Your task to perform on an android device: Show the shopping cart on costco.com. Add "usb-c" to the cart on costco.com, then select checkout. Image 0: 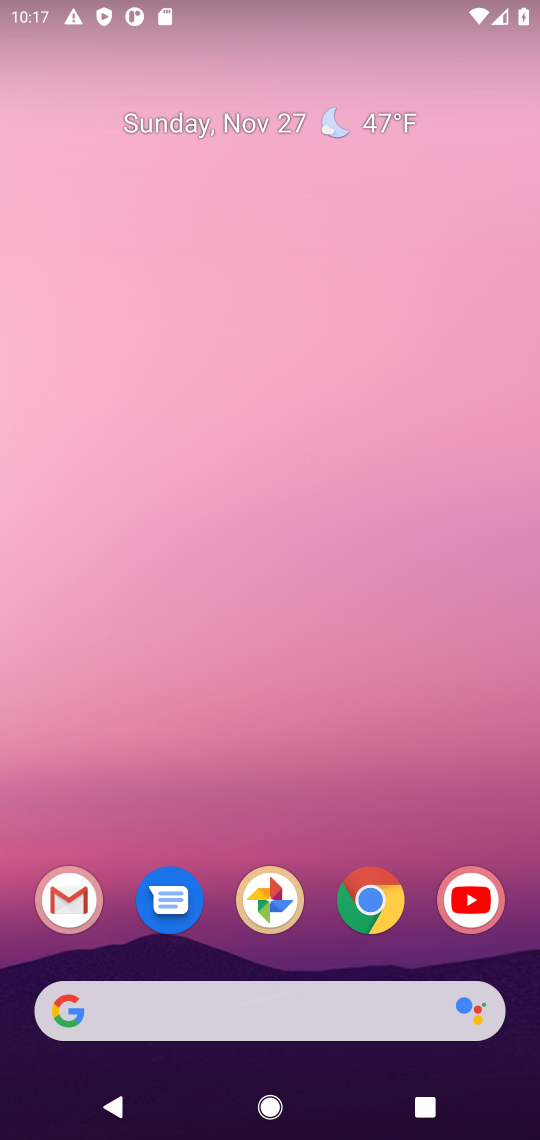
Step 0: click (371, 904)
Your task to perform on an android device: Show the shopping cart on costco.com. Add "usb-c" to the cart on costco.com, then select checkout. Image 1: 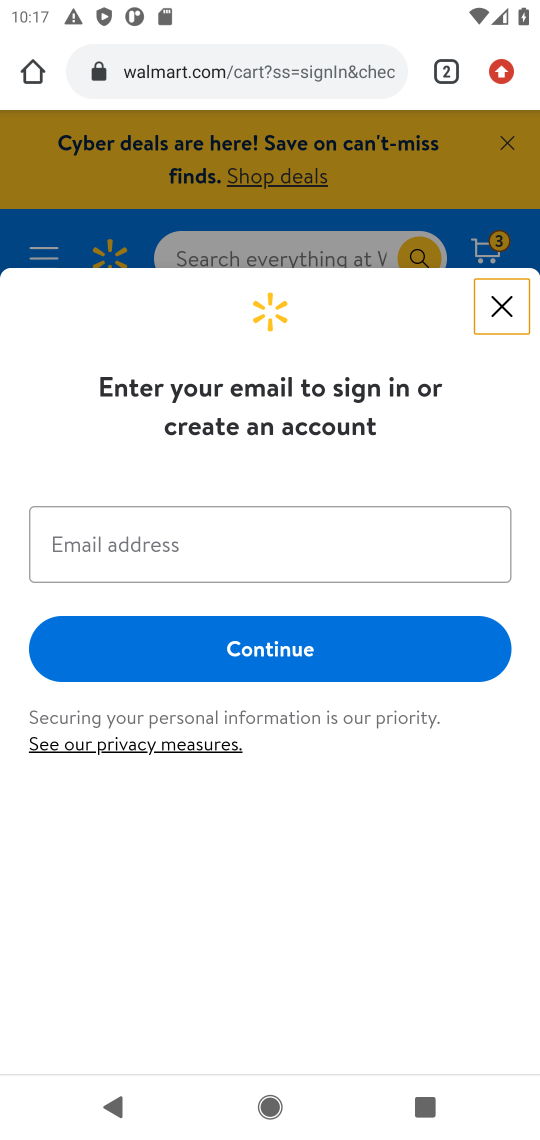
Step 1: click (243, 68)
Your task to perform on an android device: Show the shopping cart on costco.com. Add "usb-c" to the cart on costco.com, then select checkout. Image 2: 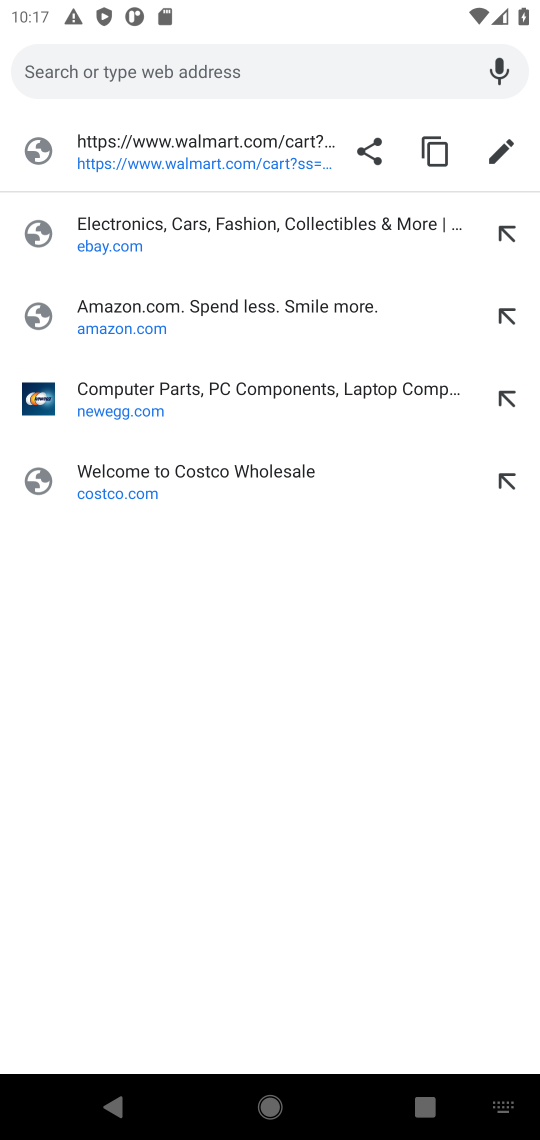
Step 2: click (101, 491)
Your task to perform on an android device: Show the shopping cart on costco.com. Add "usb-c" to the cart on costco.com, then select checkout. Image 3: 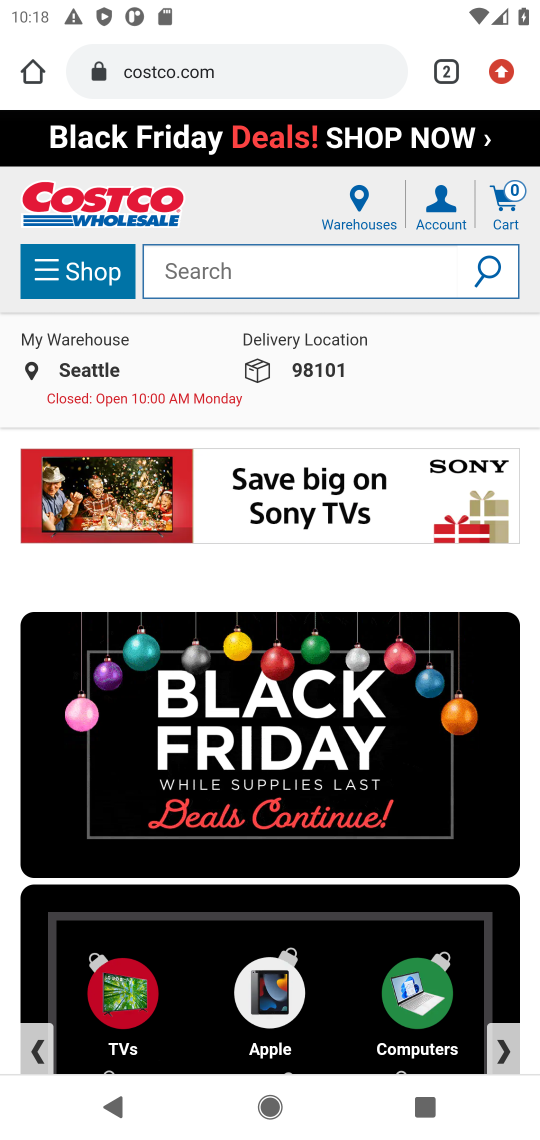
Step 3: click (499, 206)
Your task to perform on an android device: Show the shopping cart on costco.com. Add "usb-c" to the cart on costco.com, then select checkout. Image 4: 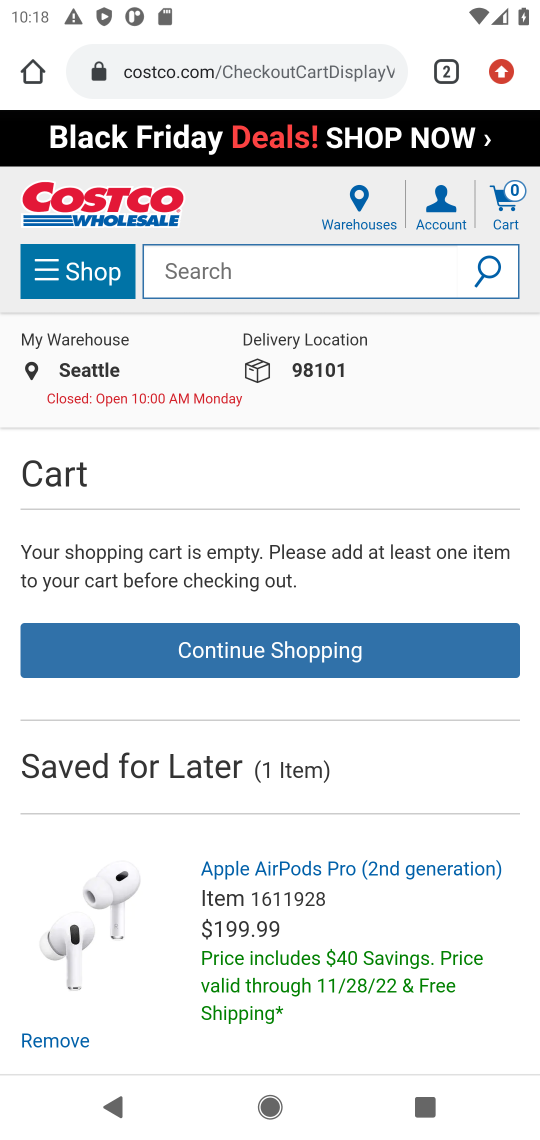
Step 4: click (182, 280)
Your task to perform on an android device: Show the shopping cart on costco.com. Add "usb-c" to the cart on costco.com, then select checkout. Image 5: 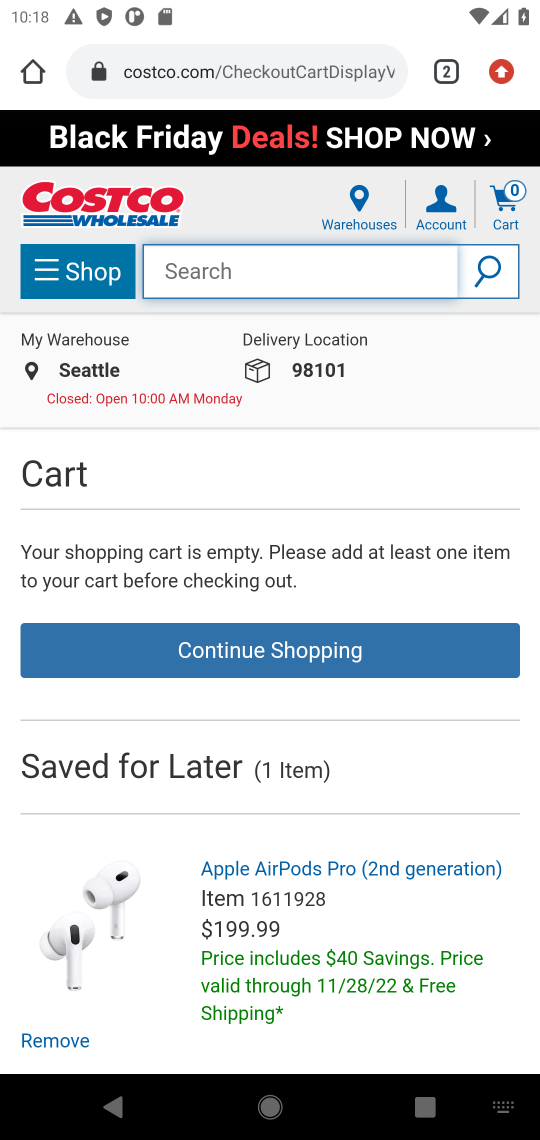
Step 5: type "usb-c"
Your task to perform on an android device: Show the shopping cart on costco.com. Add "usb-c" to the cart on costco.com, then select checkout. Image 6: 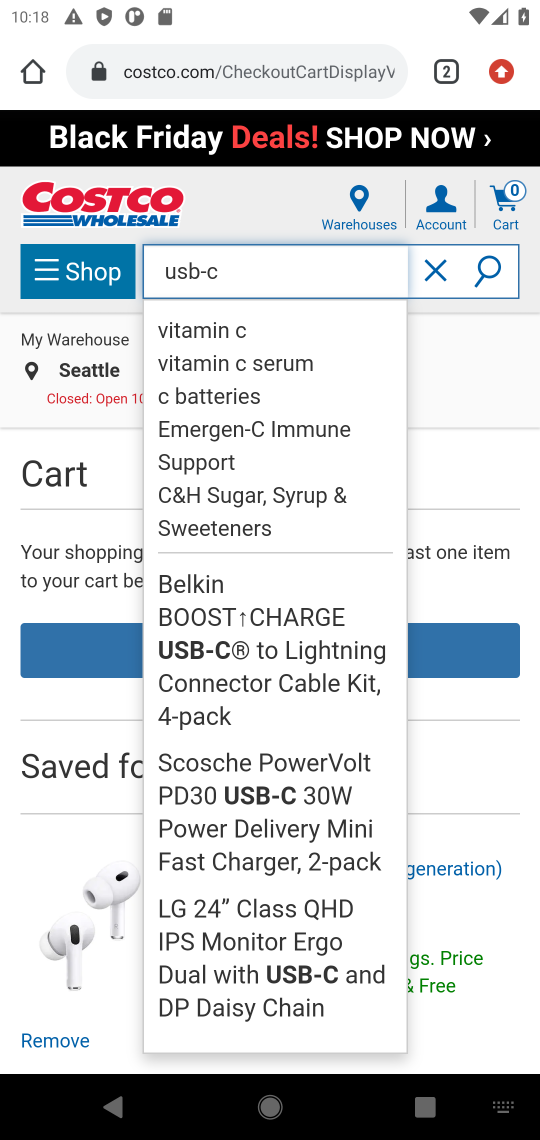
Step 6: click (491, 262)
Your task to perform on an android device: Show the shopping cart on costco.com. Add "usb-c" to the cart on costco.com, then select checkout. Image 7: 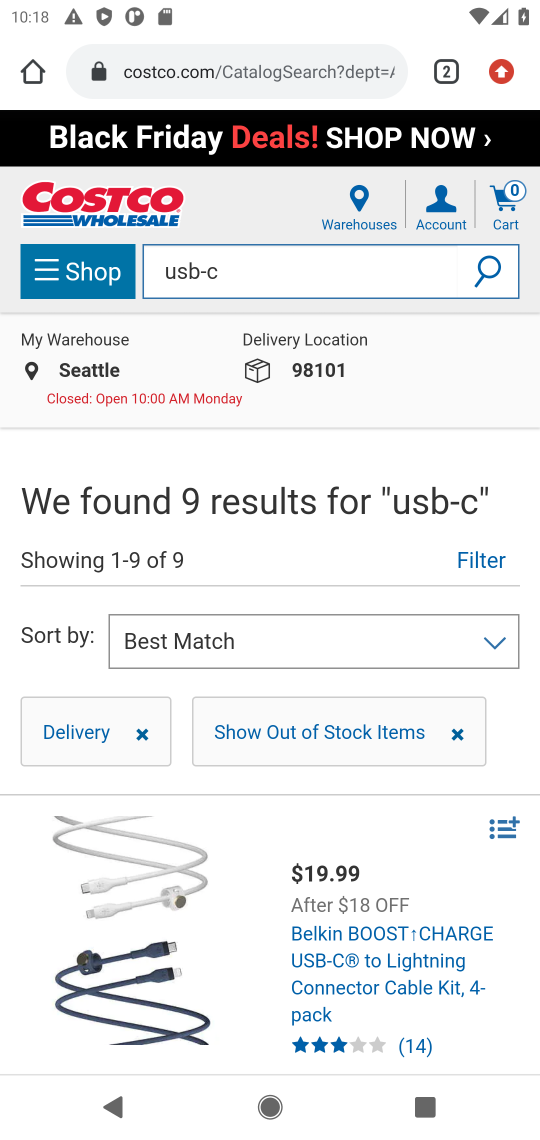
Step 7: drag from (259, 795) to (261, 513)
Your task to perform on an android device: Show the shopping cart on costco.com. Add "usb-c" to the cart on costco.com, then select checkout. Image 8: 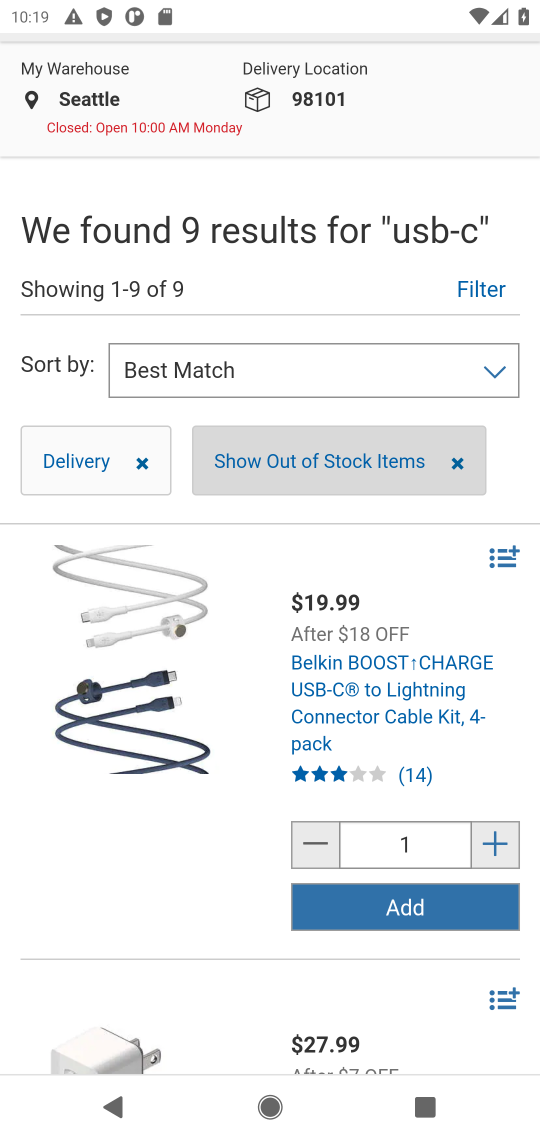
Step 8: click (402, 913)
Your task to perform on an android device: Show the shopping cart on costco.com. Add "usb-c" to the cart on costco.com, then select checkout. Image 9: 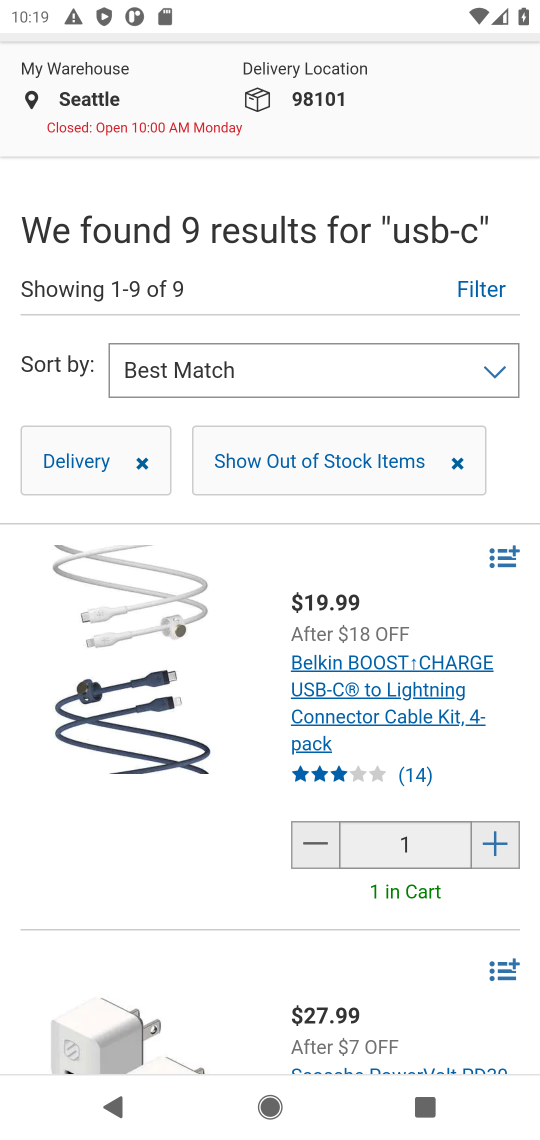
Step 9: drag from (351, 326) to (259, 753)
Your task to perform on an android device: Show the shopping cart on costco.com. Add "usb-c" to the cart on costco.com, then select checkout. Image 10: 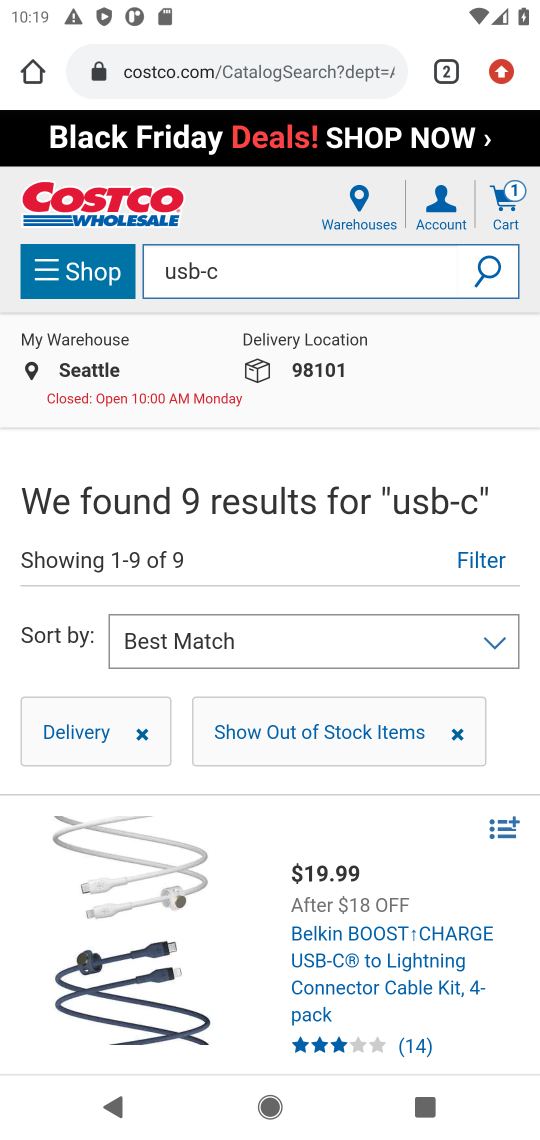
Step 10: click (508, 204)
Your task to perform on an android device: Show the shopping cart on costco.com. Add "usb-c" to the cart on costco.com, then select checkout. Image 11: 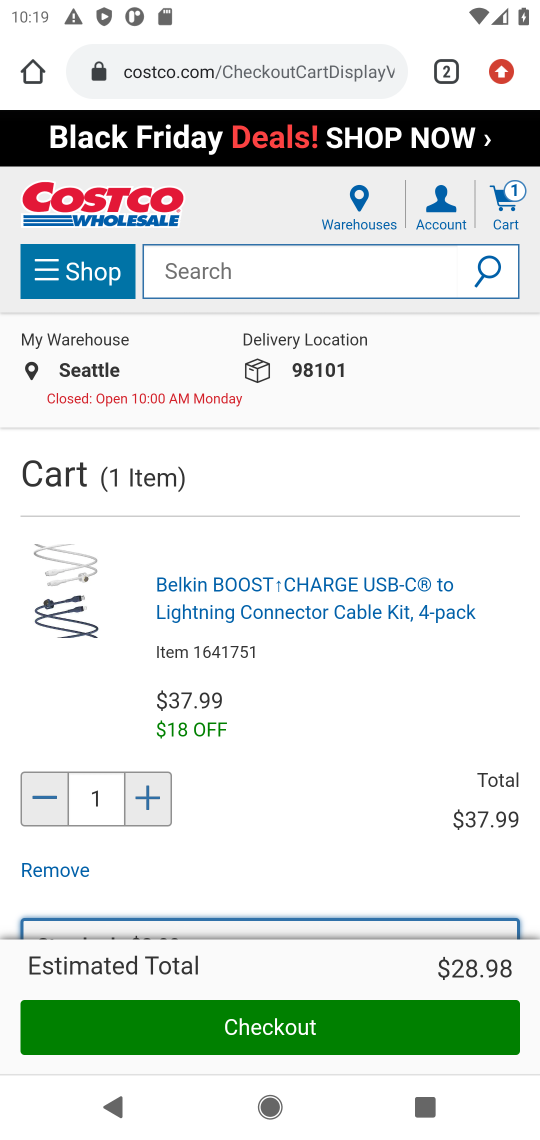
Step 11: click (273, 1023)
Your task to perform on an android device: Show the shopping cart on costco.com. Add "usb-c" to the cart on costco.com, then select checkout. Image 12: 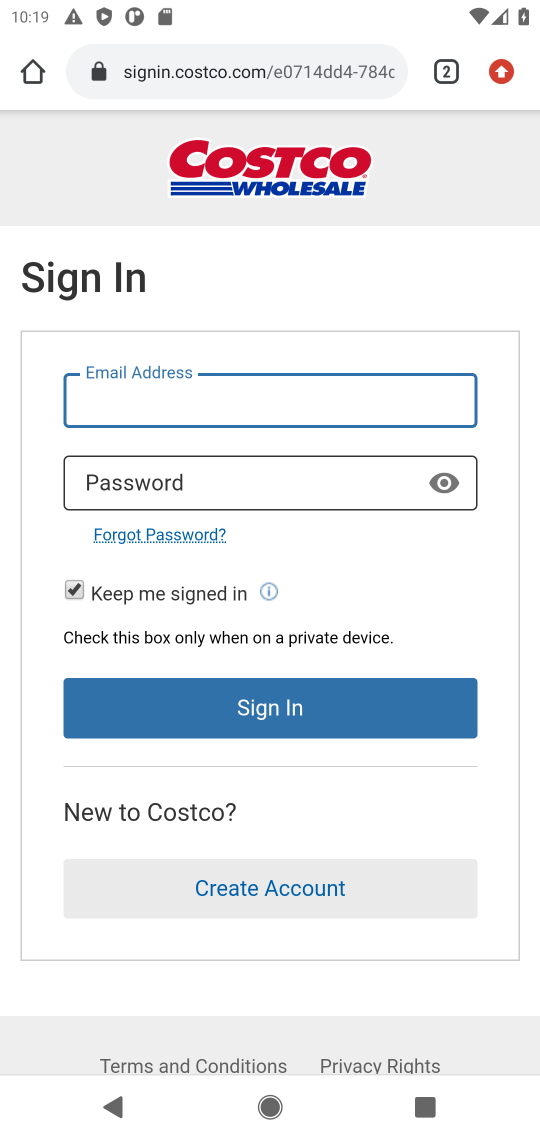
Step 12: task complete